Your task to perform on an android device: open a new tab in the chrome app Image 0: 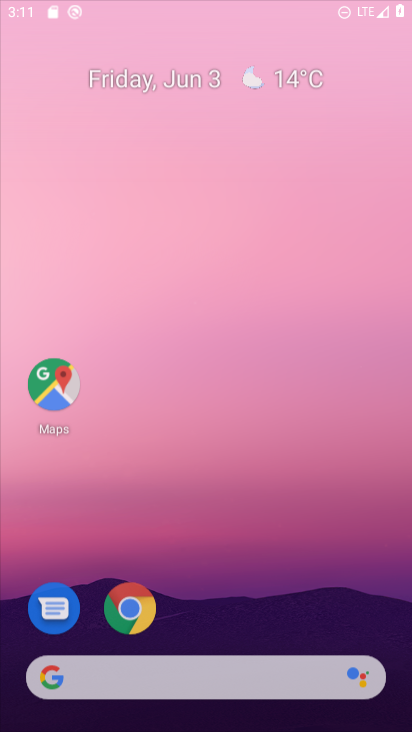
Step 0: click (251, 128)
Your task to perform on an android device: open a new tab in the chrome app Image 1: 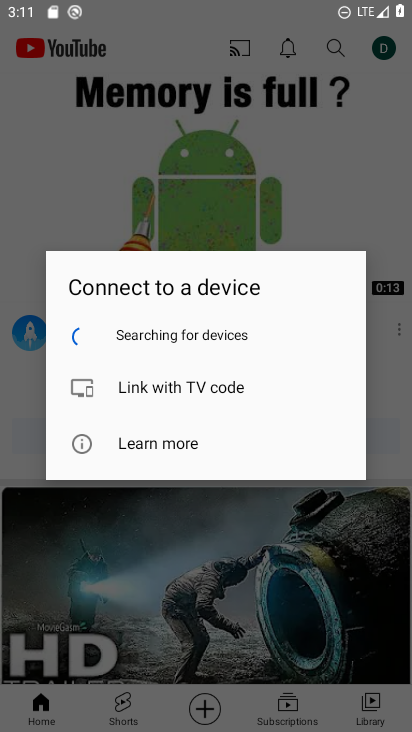
Step 1: press home button
Your task to perform on an android device: open a new tab in the chrome app Image 2: 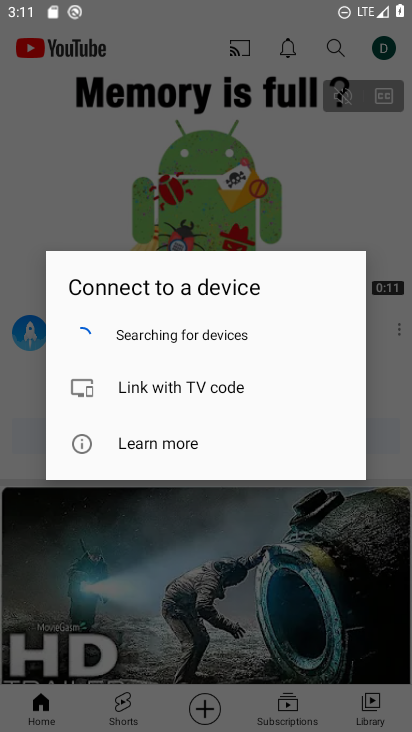
Step 2: drag from (215, 607) to (302, 32)
Your task to perform on an android device: open a new tab in the chrome app Image 3: 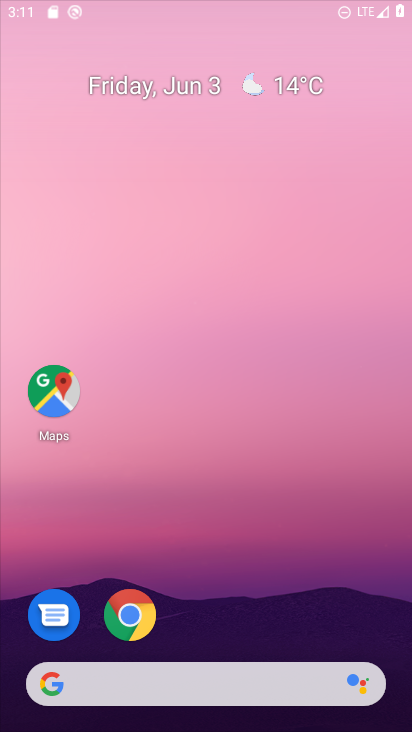
Step 3: press home button
Your task to perform on an android device: open a new tab in the chrome app Image 4: 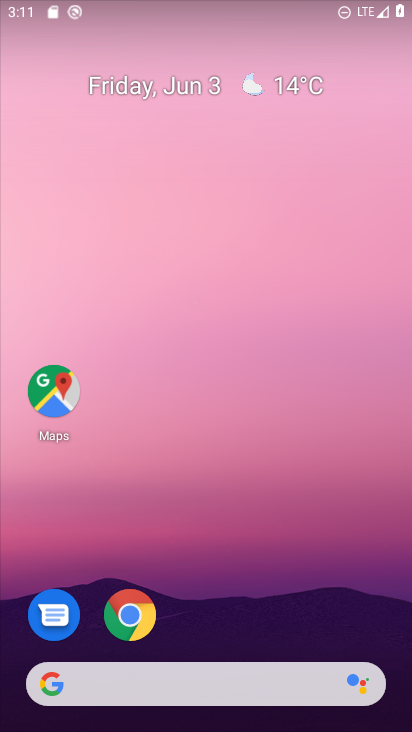
Step 4: press home button
Your task to perform on an android device: open a new tab in the chrome app Image 5: 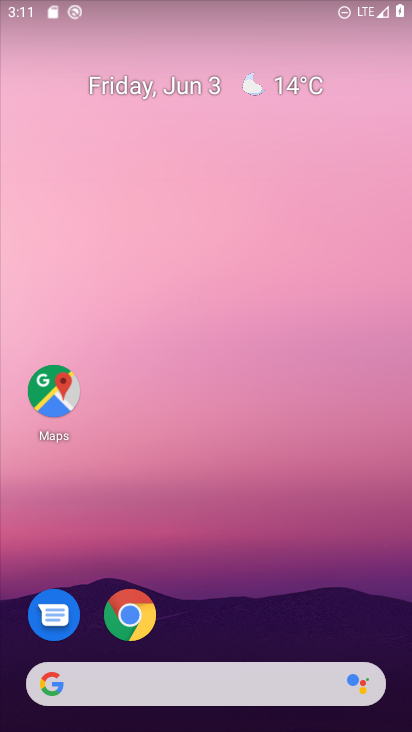
Step 5: drag from (339, 118) to (353, 69)
Your task to perform on an android device: open a new tab in the chrome app Image 6: 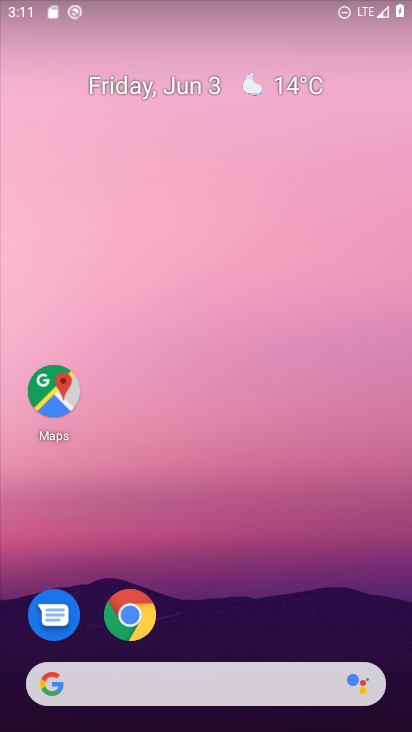
Step 6: drag from (200, 609) to (340, 46)
Your task to perform on an android device: open a new tab in the chrome app Image 7: 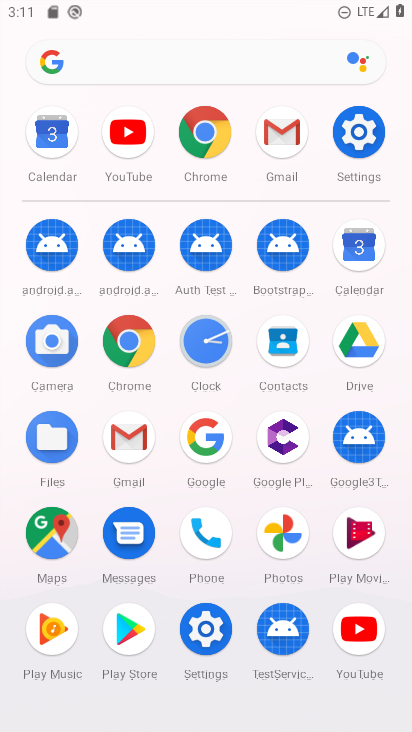
Step 7: click (120, 343)
Your task to perform on an android device: open a new tab in the chrome app Image 8: 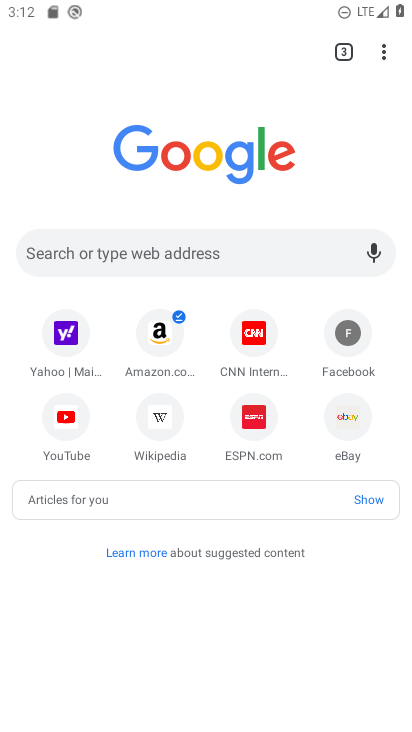
Step 8: task complete